Your task to perform on an android device: add a contact Image 0: 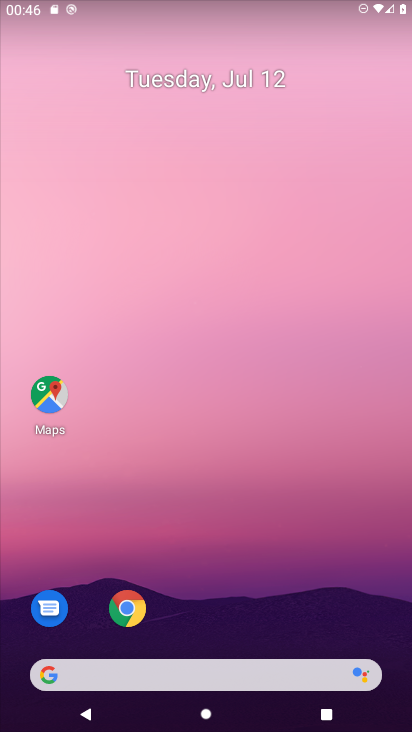
Step 0: drag from (187, 639) to (96, 60)
Your task to perform on an android device: add a contact Image 1: 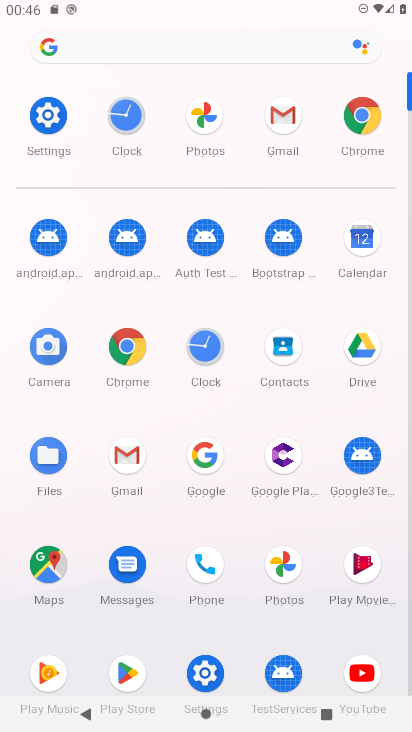
Step 1: click (189, 571)
Your task to perform on an android device: add a contact Image 2: 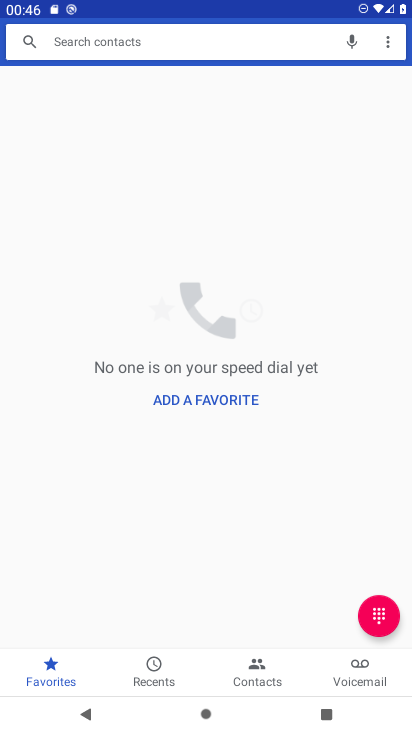
Step 2: click (265, 660)
Your task to perform on an android device: add a contact Image 3: 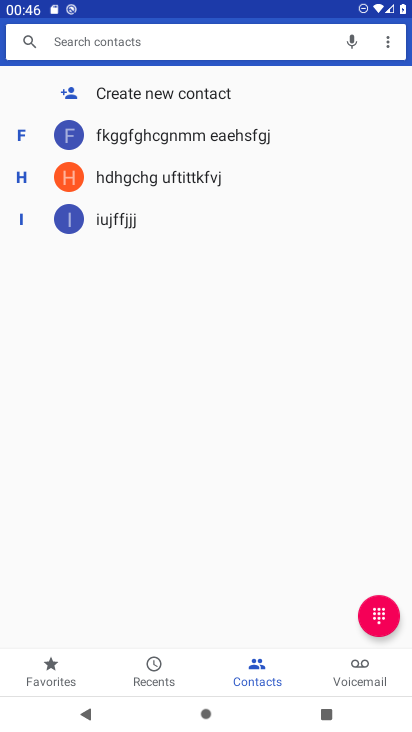
Step 3: click (79, 94)
Your task to perform on an android device: add a contact Image 4: 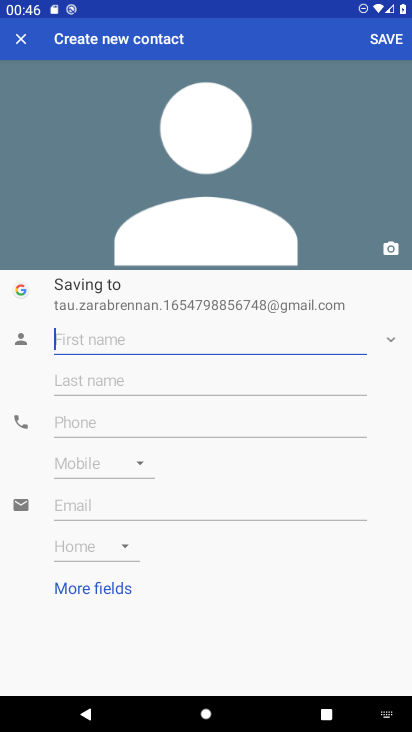
Step 4: type "d"
Your task to perform on an android device: add a contact Image 5: 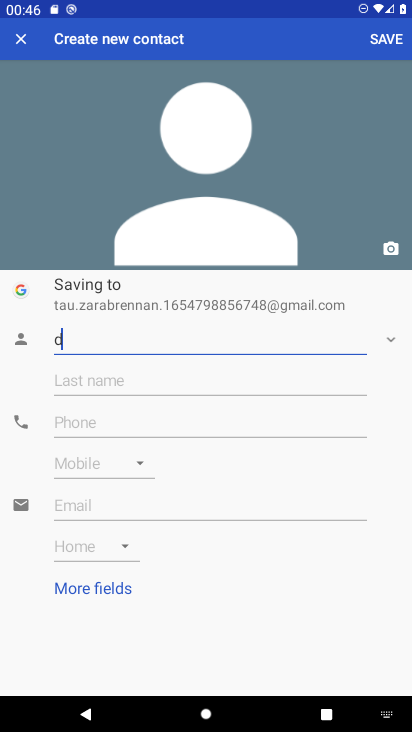
Step 5: type ""
Your task to perform on an android device: add a contact Image 6: 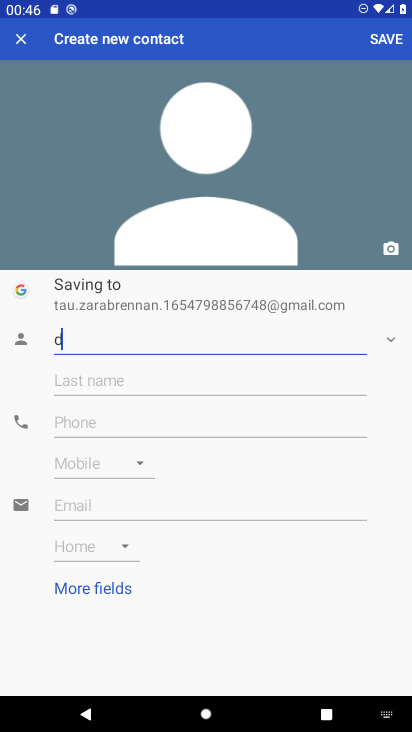
Step 6: click (114, 426)
Your task to perform on an android device: add a contact Image 7: 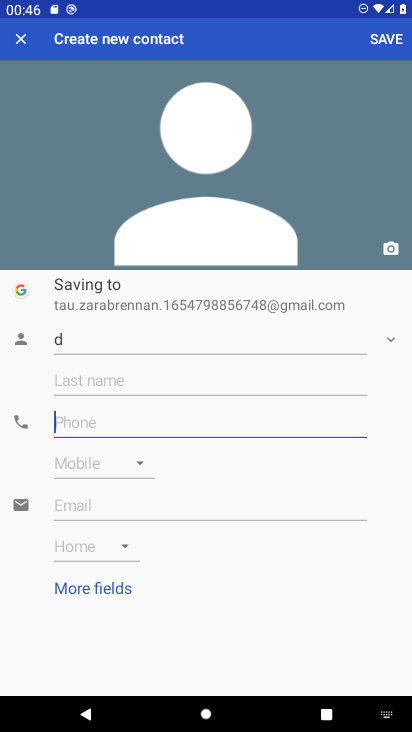
Step 7: type "x"
Your task to perform on an android device: add a contact Image 8: 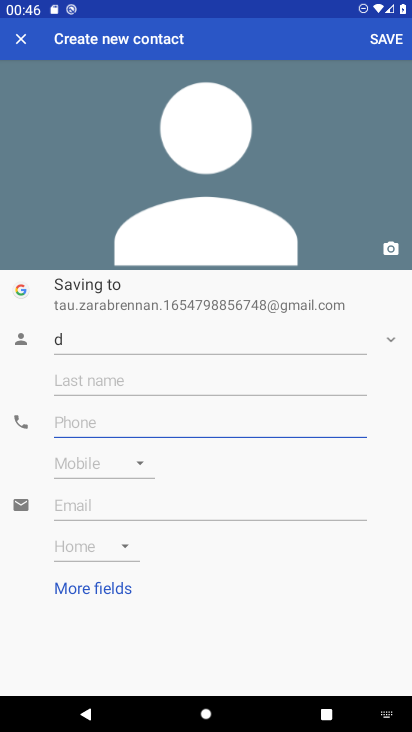
Step 8: type ""
Your task to perform on an android device: add a contact Image 9: 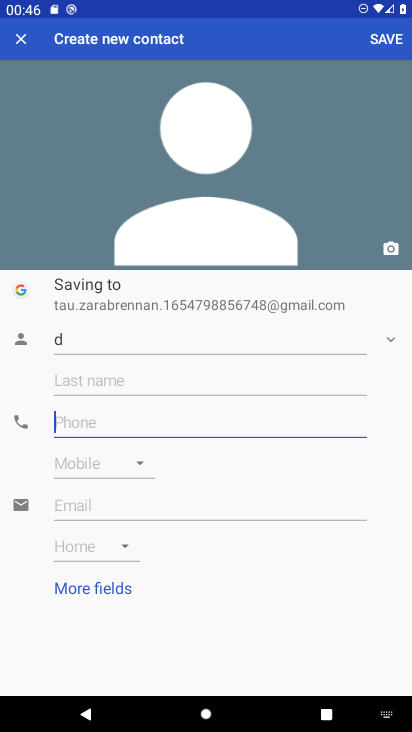
Step 9: click (389, 43)
Your task to perform on an android device: add a contact Image 10: 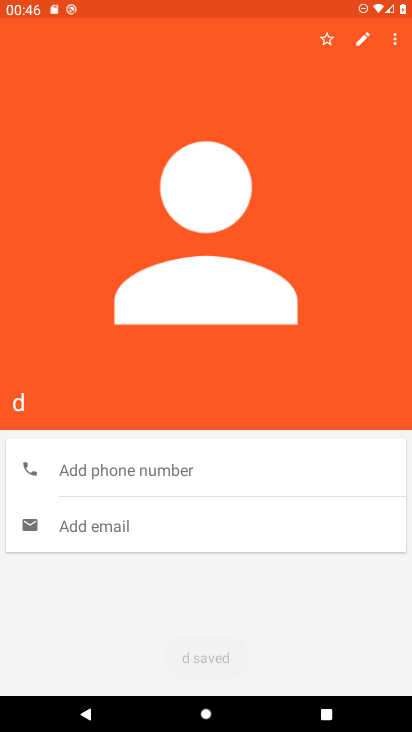
Step 10: task complete